Your task to perform on an android device: Check the weather Image 0: 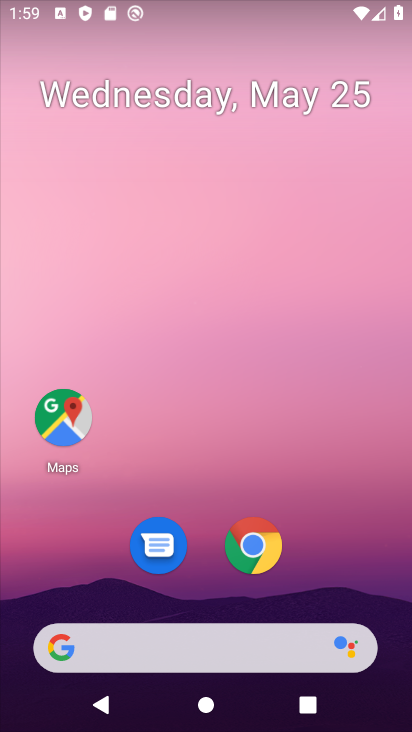
Step 0: drag from (327, 588) to (187, 164)
Your task to perform on an android device: Check the weather Image 1: 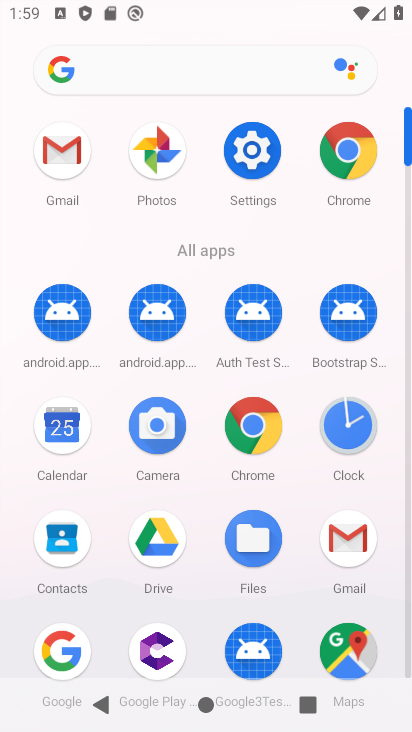
Step 1: click (158, 68)
Your task to perform on an android device: Check the weather Image 2: 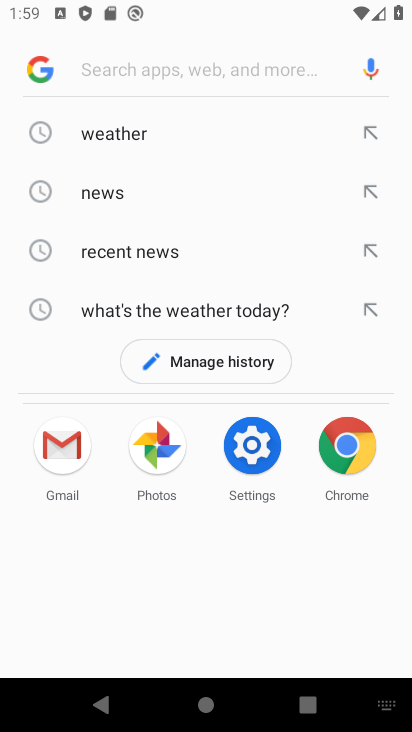
Step 2: click (183, 118)
Your task to perform on an android device: Check the weather Image 3: 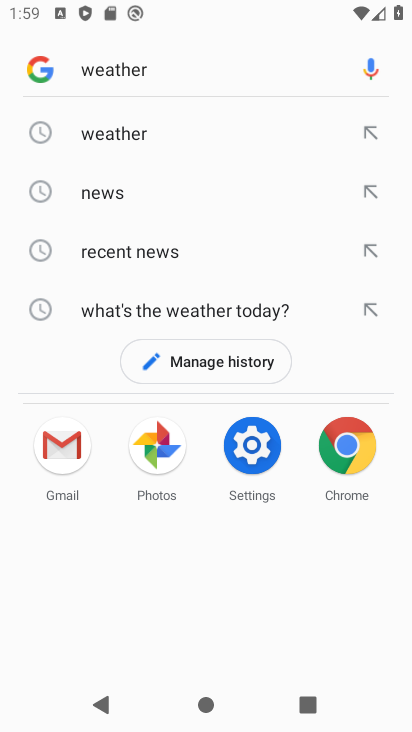
Step 3: task complete